Your task to perform on an android device: turn off location history Image 0: 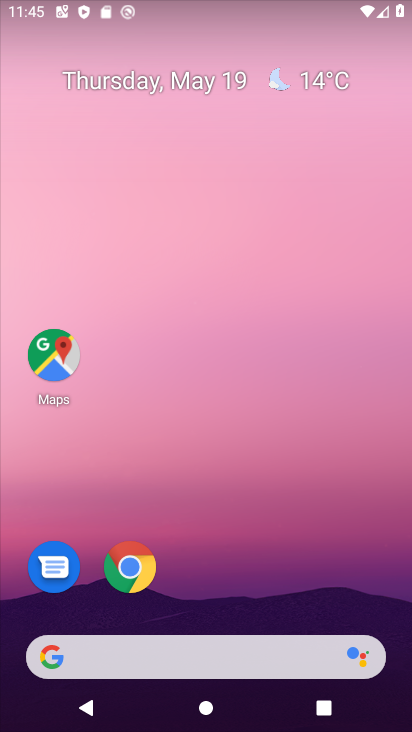
Step 0: drag from (320, 446) to (353, 0)
Your task to perform on an android device: turn off location history Image 1: 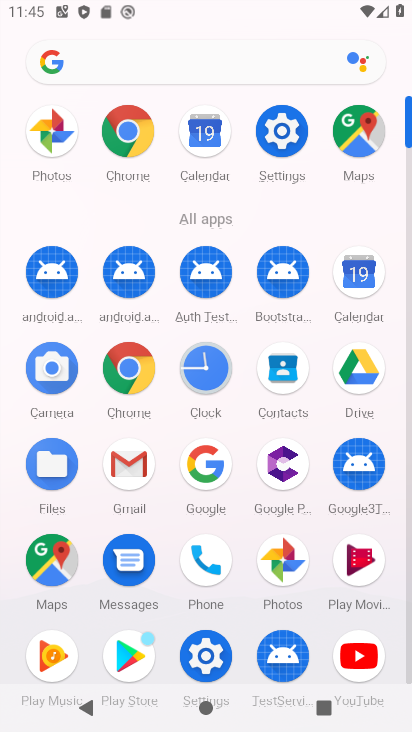
Step 1: click (289, 128)
Your task to perform on an android device: turn off location history Image 2: 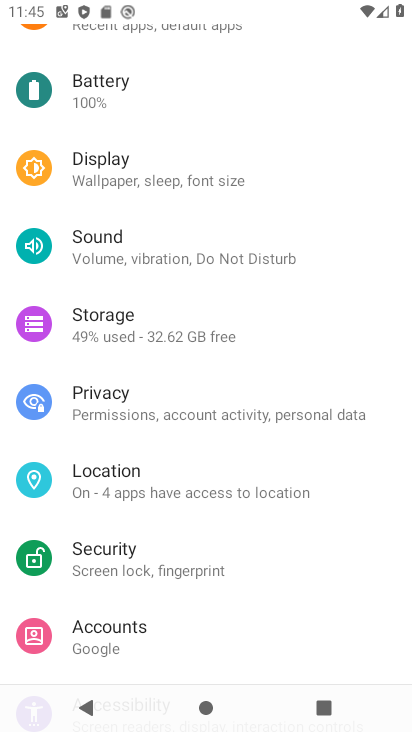
Step 2: click (189, 482)
Your task to perform on an android device: turn off location history Image 3: 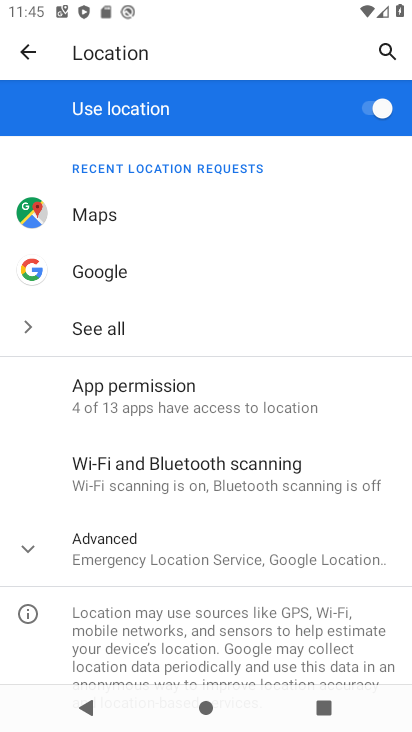
Step 3: drag from (201, 586) to (212, 206)
Your task to perform on an android device: turn off location history Image 4: 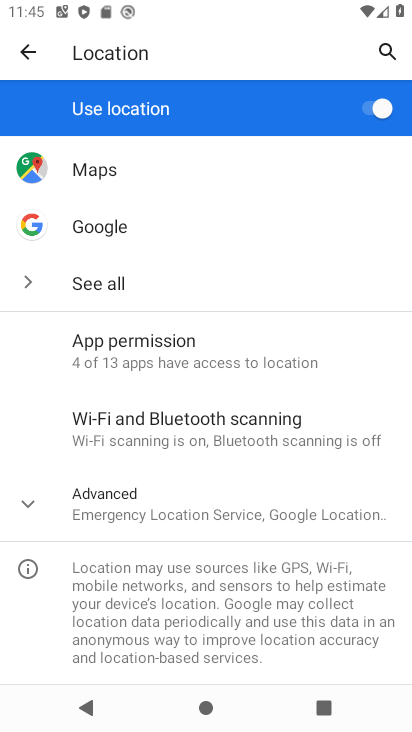
Step 4: click (129, 502)
Your task to perform on an android device: turn off location history Image 5: 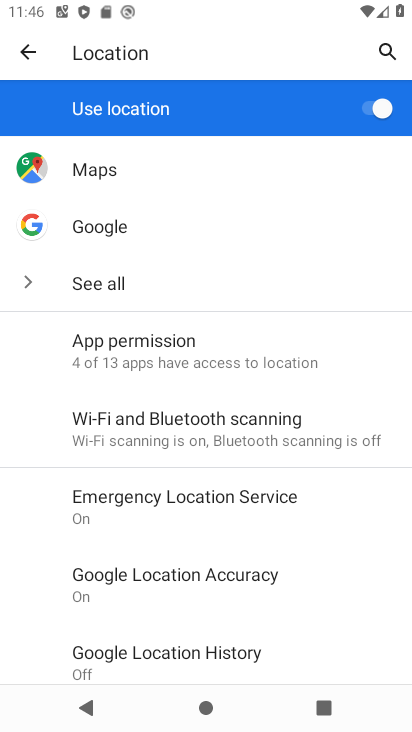
Step 5: drag from (154, 610) to (218, 252)
Your task to perform on an android device: turn off location history Image 6: 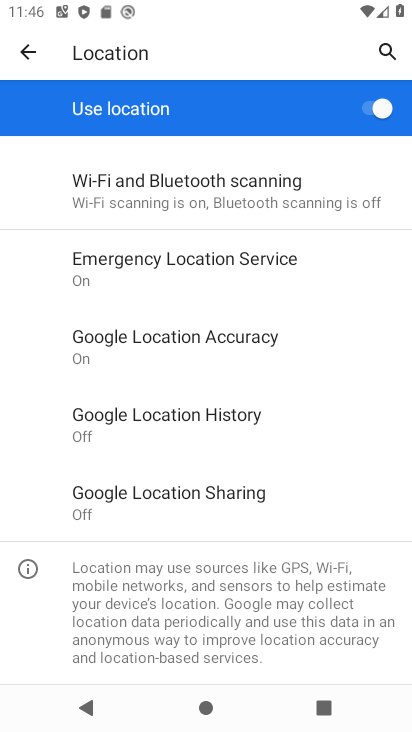
Step 6: click (200, 418)
Your task to perform on an android device: turn off location history Image 7: 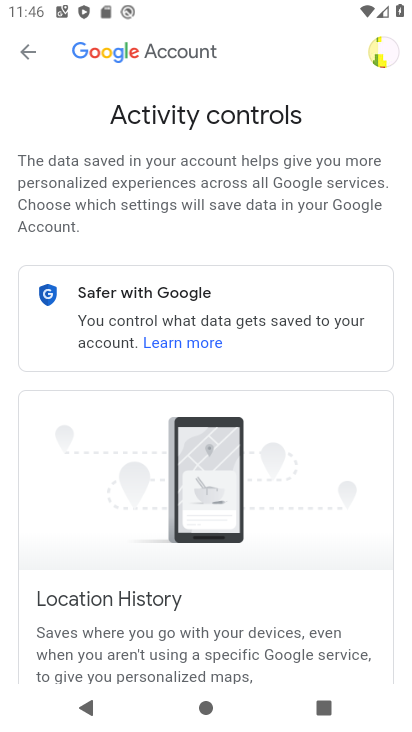
Step 7: task complete